Your task to perform on an android device: Open maps Image 0: 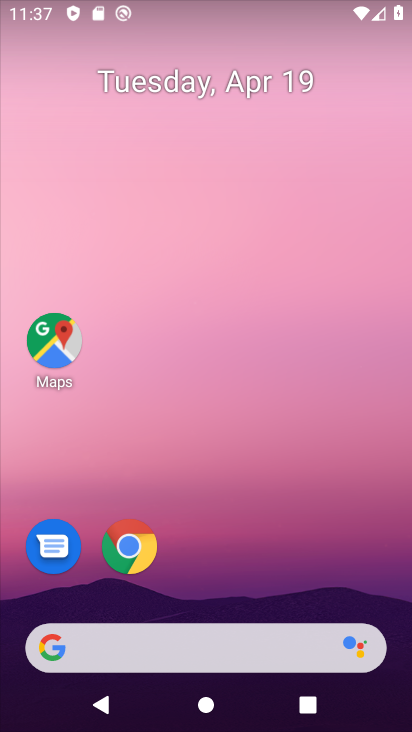
Step 0: click (57, 333)
Your task to perform on an android device: Open maps Image 1: 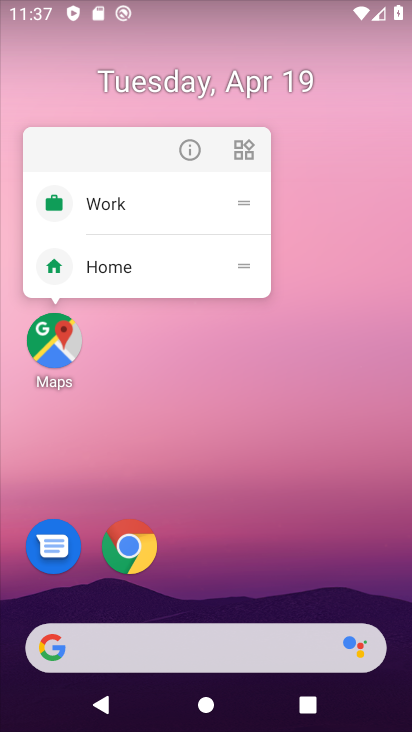
Step 1: click (57, 333)
Your task to perform on an android device: Open maps Image 2: 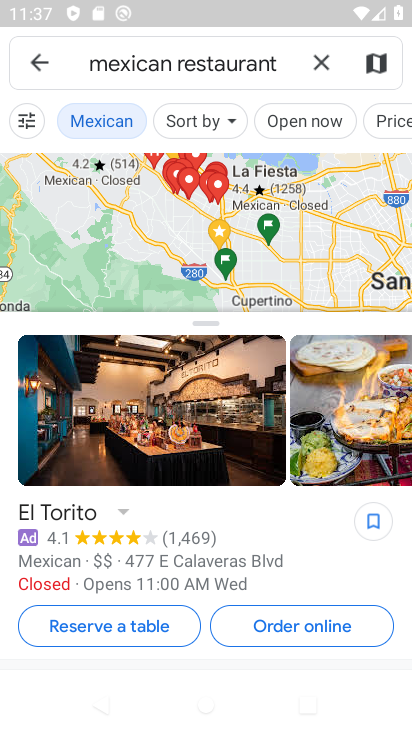
Step 2: click (329, 66)
Your task to perform on an android device: Open maps Image 3: 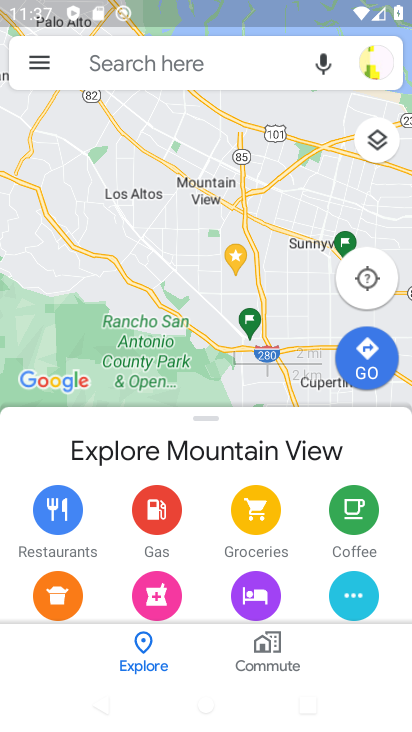
Step 3: task complete